Your task to perform on an android device: all mails in gmail Image 0: 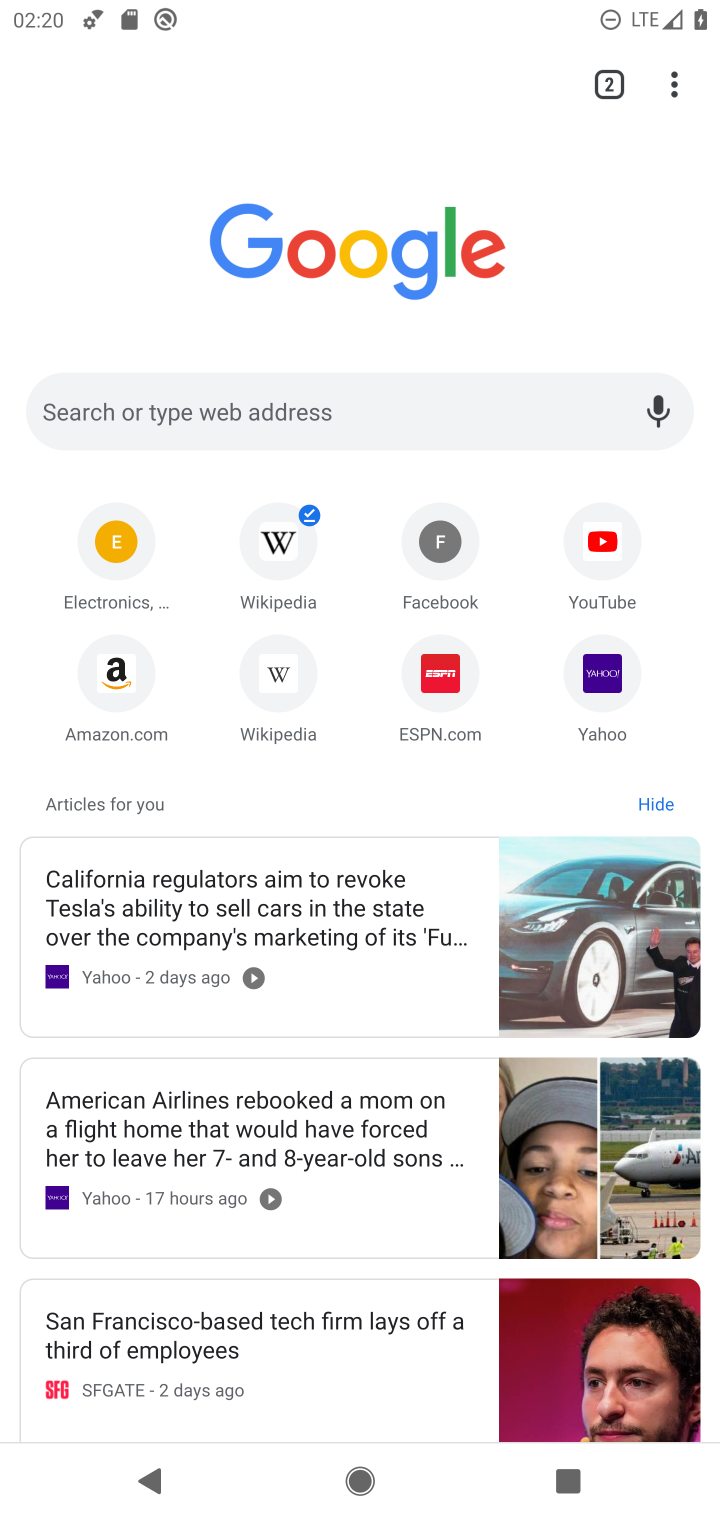
Step 0: press home button
Your task to perform on an android device: all mails in gmail Image 1: 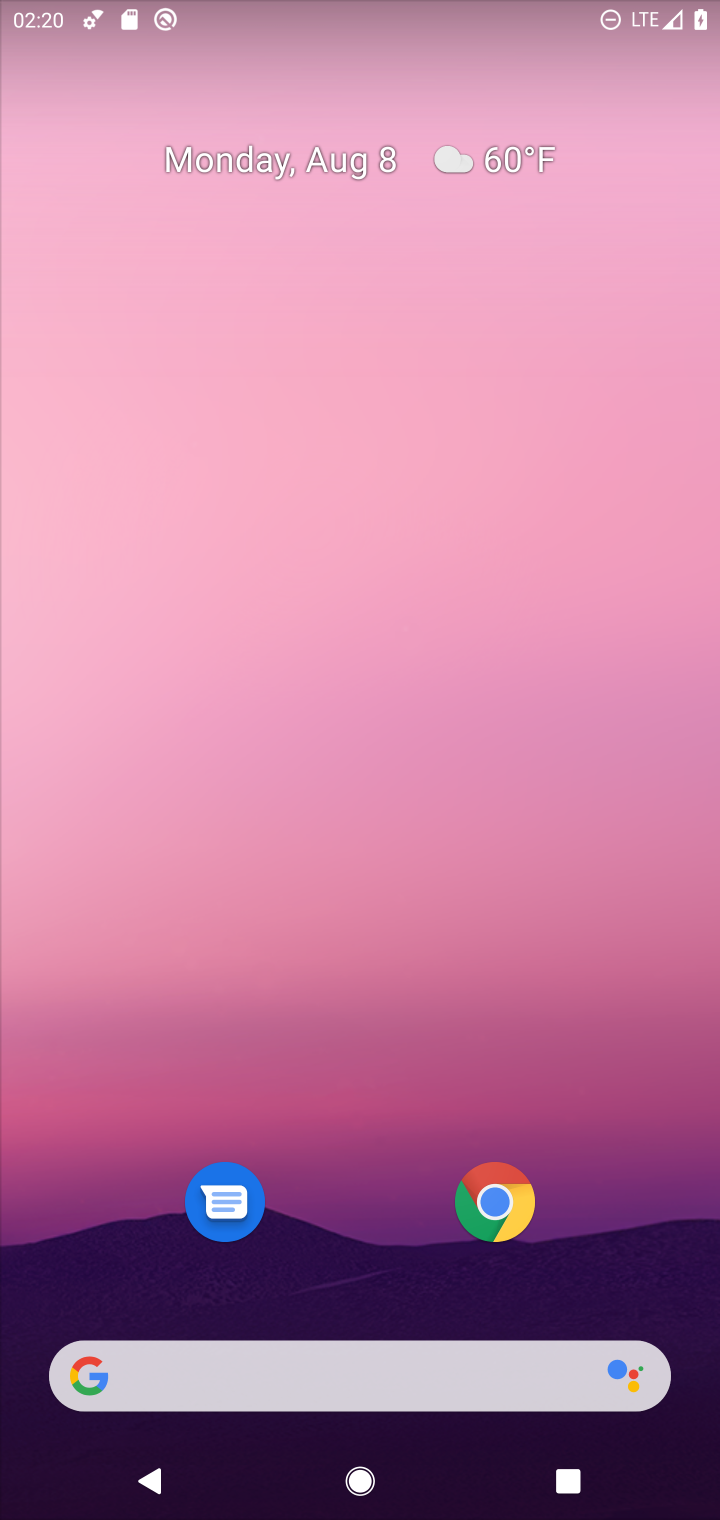
Step 1: drag from (355, 1199) to (388, 174)
Your task to perform on an android device: all mails in gmail Image 2: 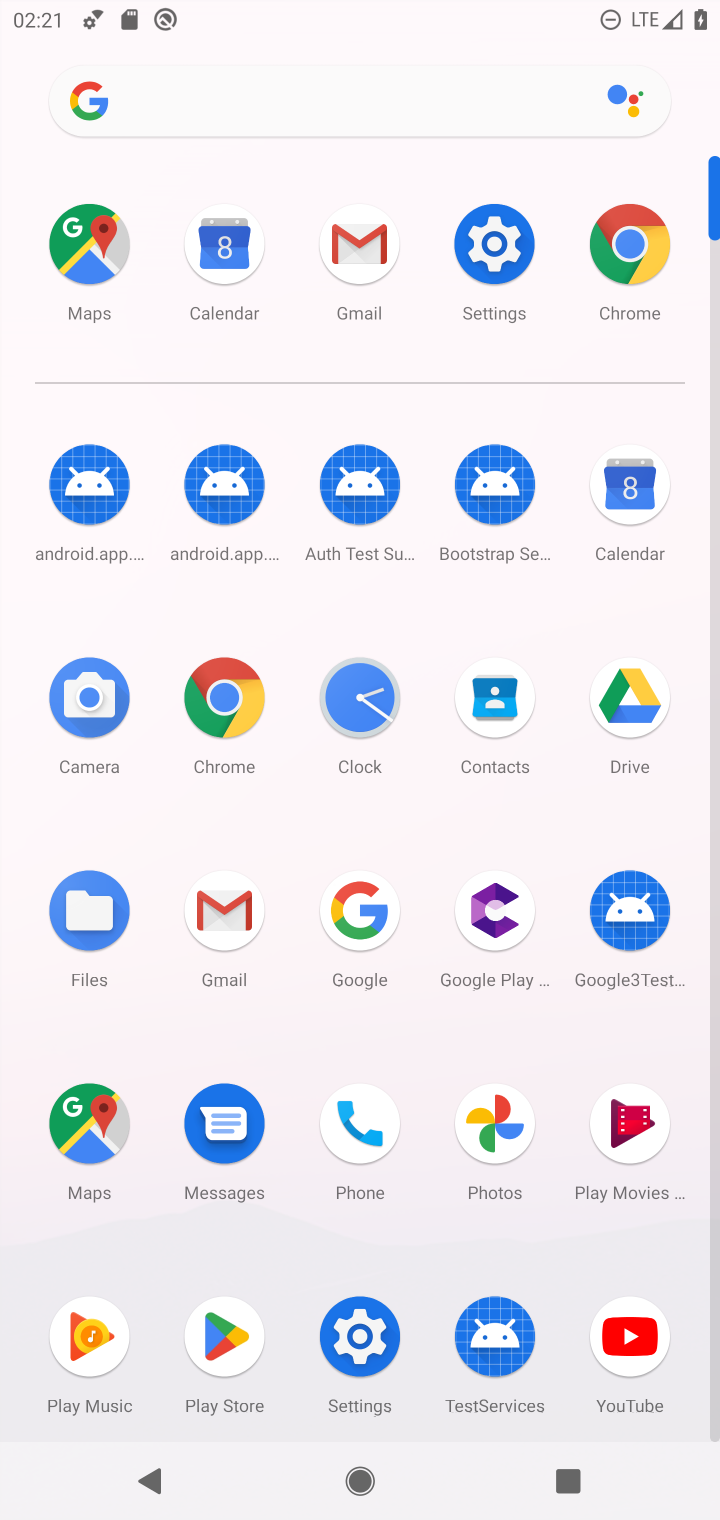
Step 2: click (217, 906)
Your task to perform on an android device: all mails in gmail Image 3: 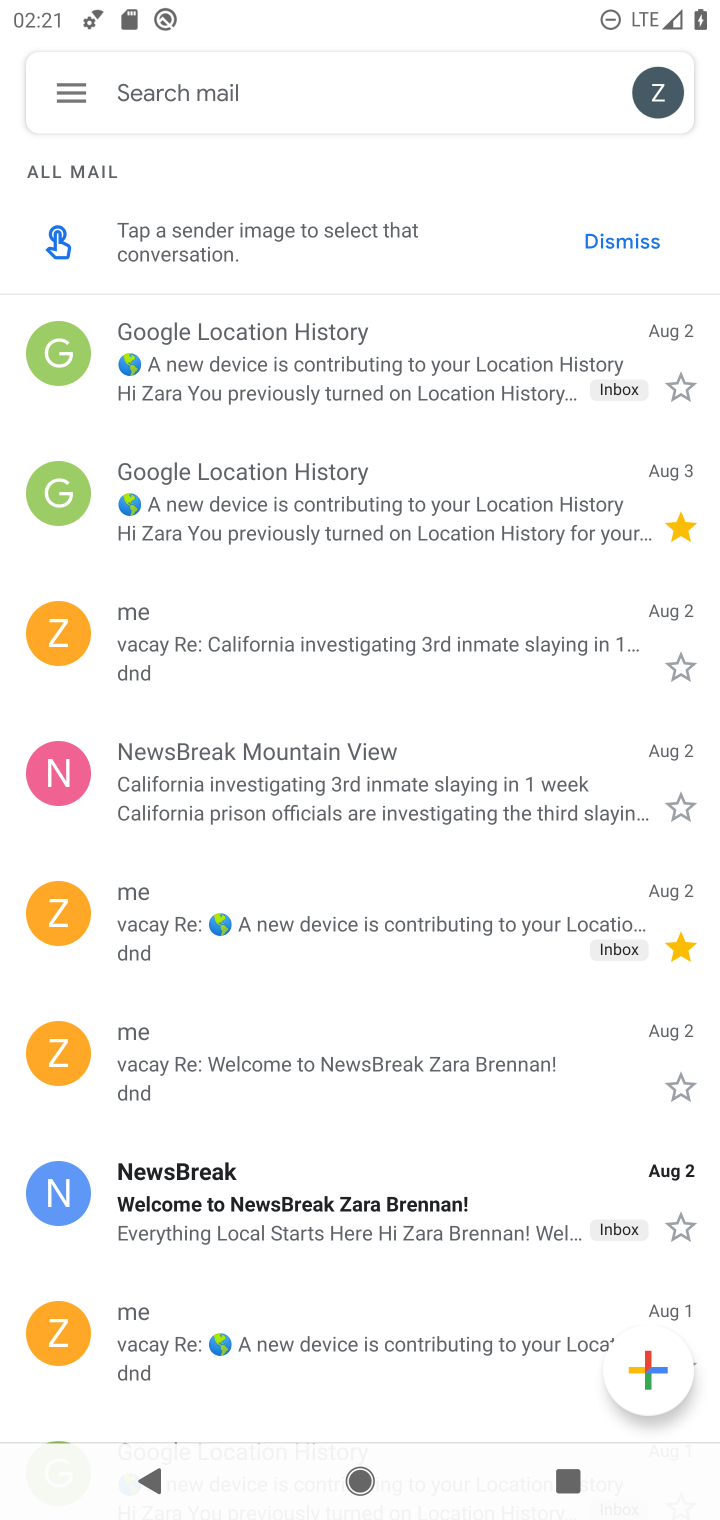
Step 3: click (69, 86)
Your task to perform on an android device: all mails in gmail Image 4: 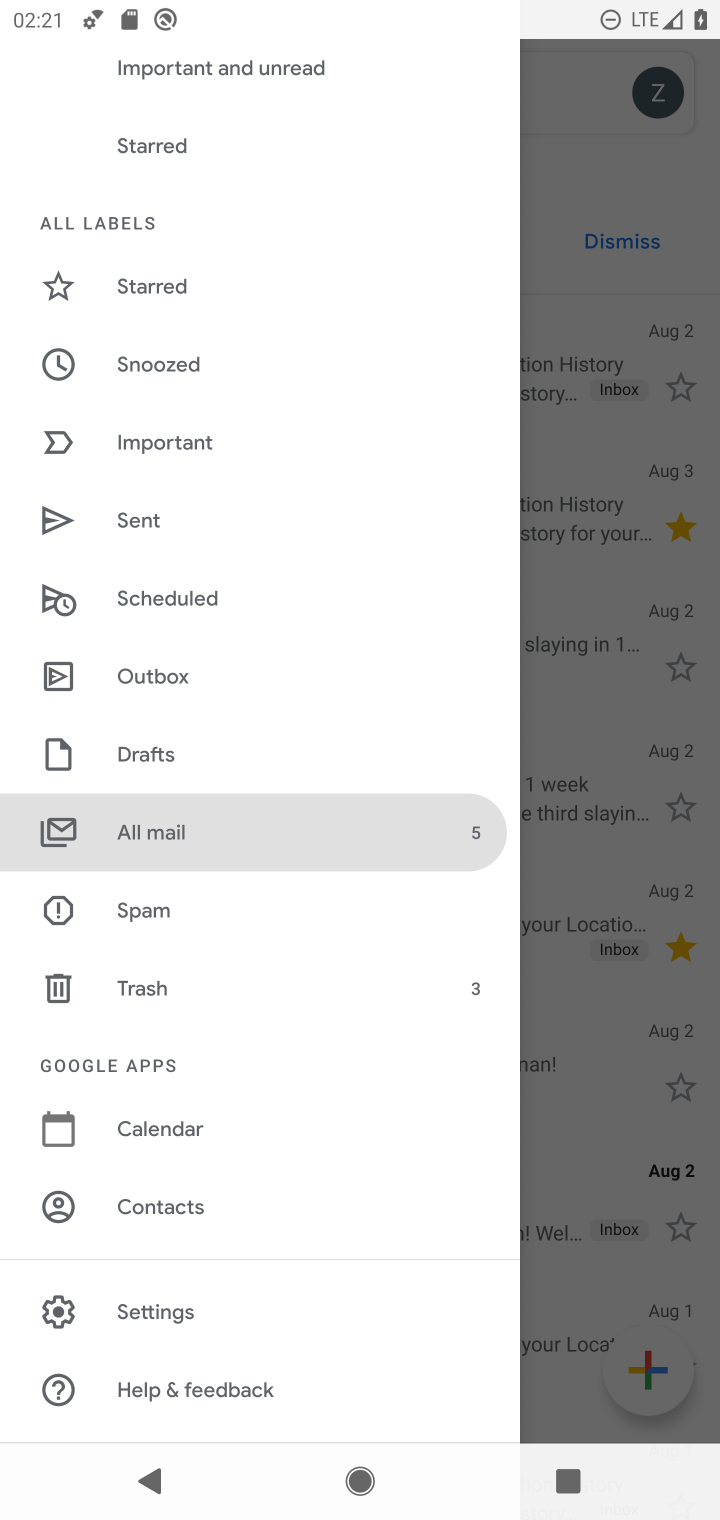
Step 4: click (241, 822)
Your task to perform on an android device: all mails in gmail Image 5: 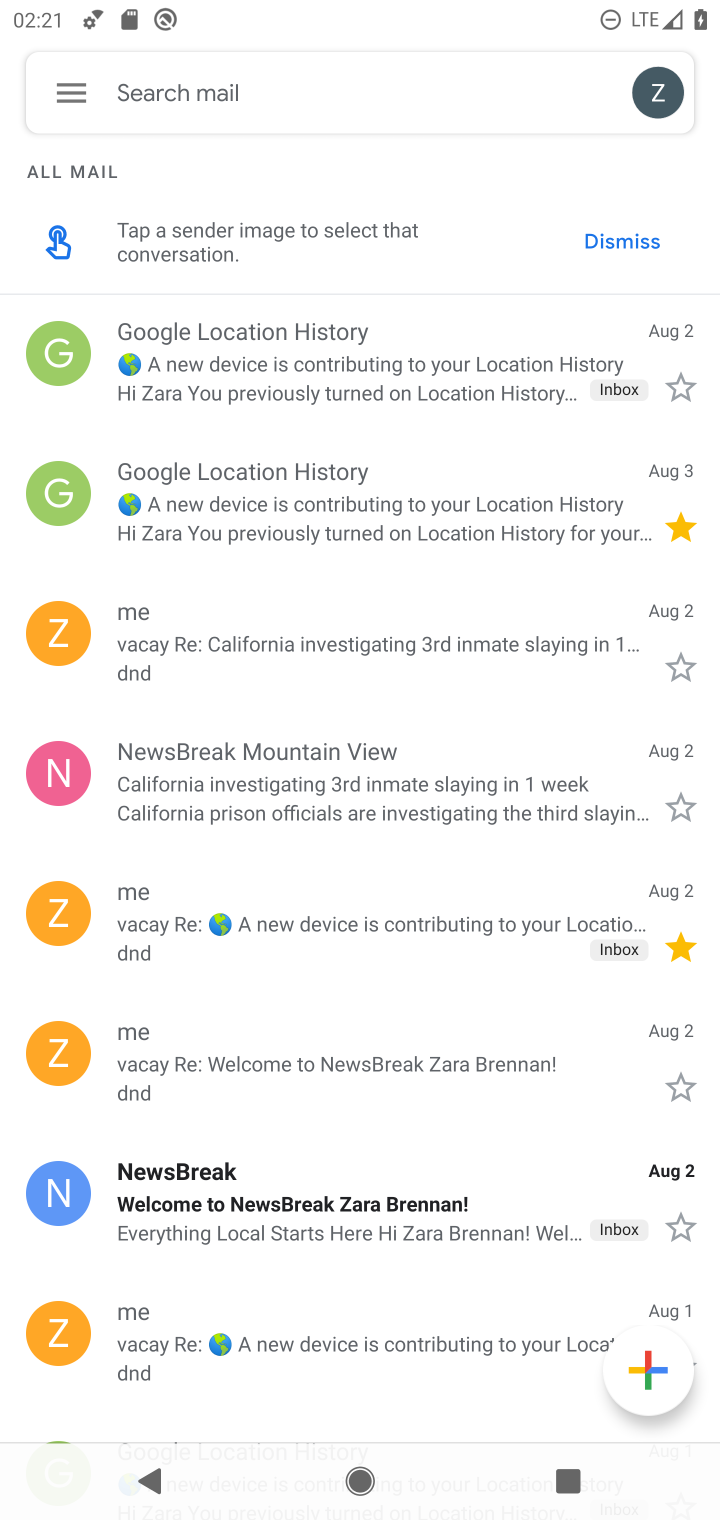
Step 5: task complete